Your task to perform on an android device: Is it going to rain this weekend? Image 0: 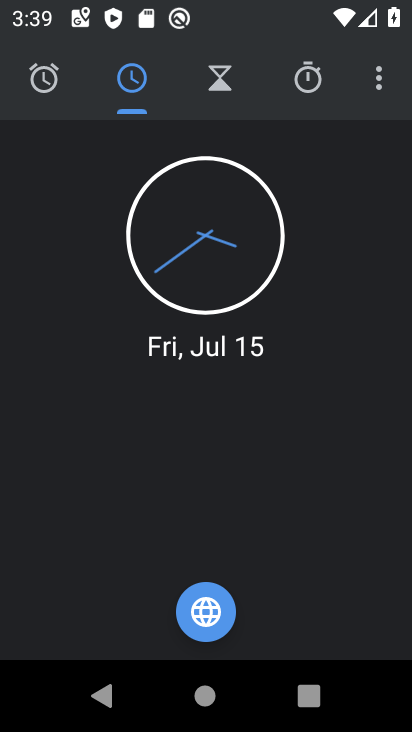
Step 0: press home button
Your task to perform on an android device: Is it going to rain this weekend? Image 1: 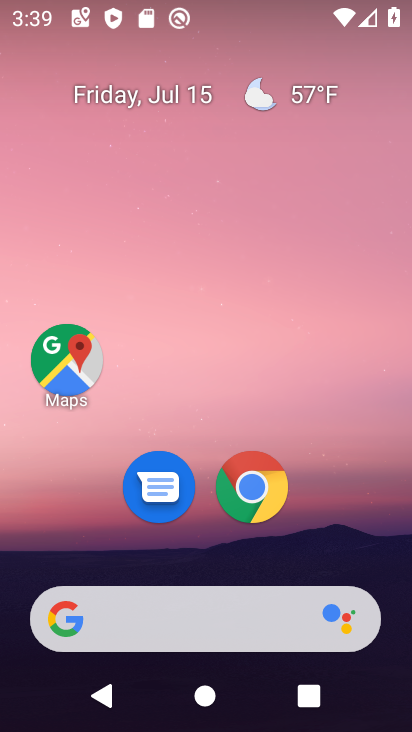
Step 1: drag from (168, 572) to (178, 126)
Your task to perform on an android device: Is it going to rain this weekend? Image 2: 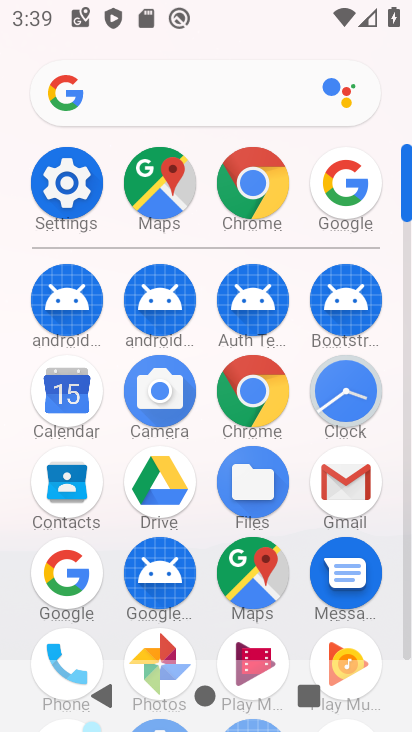
Step 2: click (86, 575)
Your task to perform on an android device: Is it going to rain this weekend? Image 3: 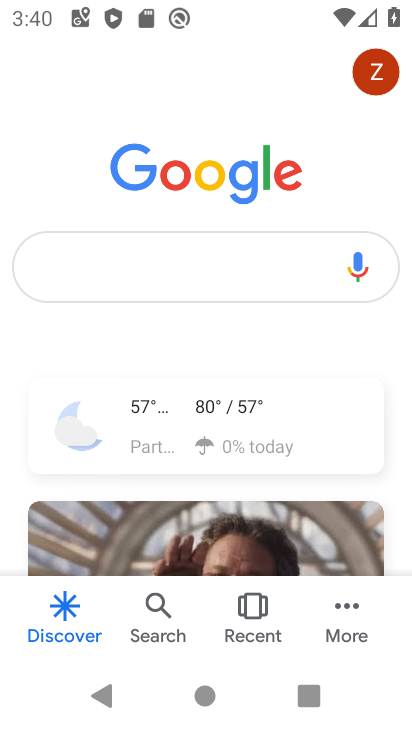
Step 3: click (191, 258)
Your task to perform on an android device: Is it going to rain this weekend? Image 4: 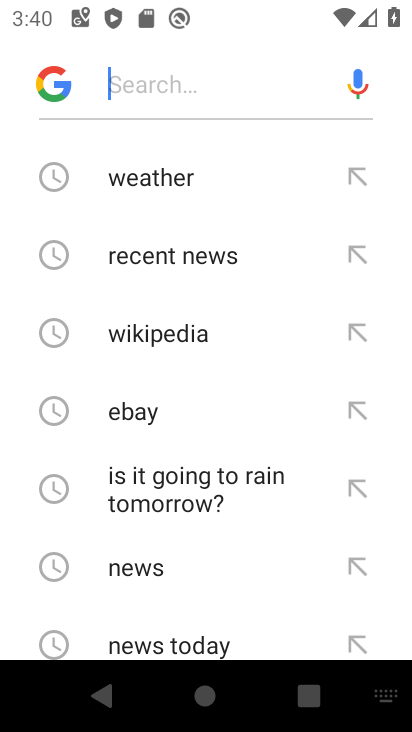
Step 4: click (225, 184)
Your task to perform on an android device: Is it going to rain this weekend? Image 5: 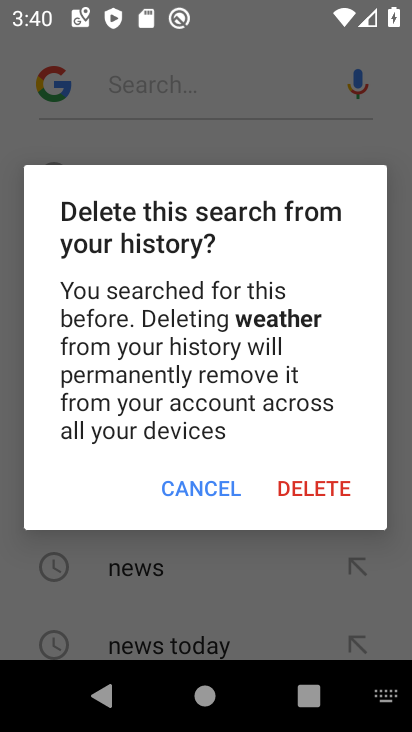
Step 5: click (192, 502)
Your task to perform on an android device: Is it going to rain this weekend? Image 6: 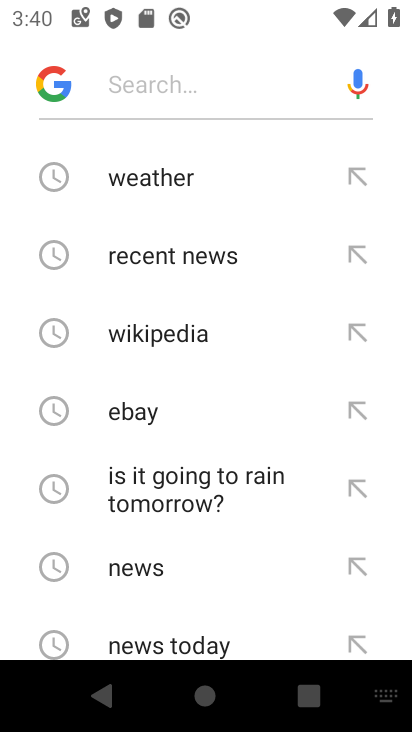
Step 6: click (361, 181)
Your task to perform on an android device: Is it going to rain this weekend? Image 7: 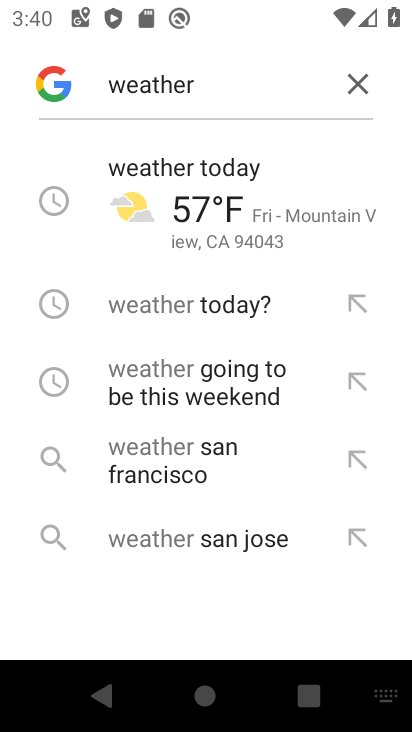
Step 7: type "weekend"
Your task to perform on an android device: Is it going to rain this weekend? Image 8: 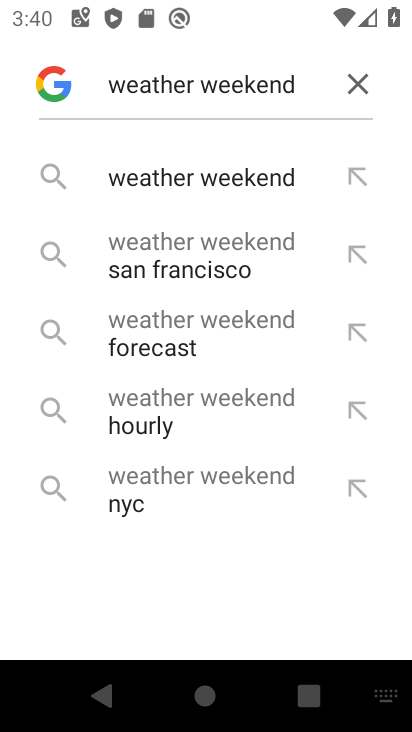
Step 8: click (172, 187)
Your task to perform on an android device: Is it going to rain this weekend? Image 9: 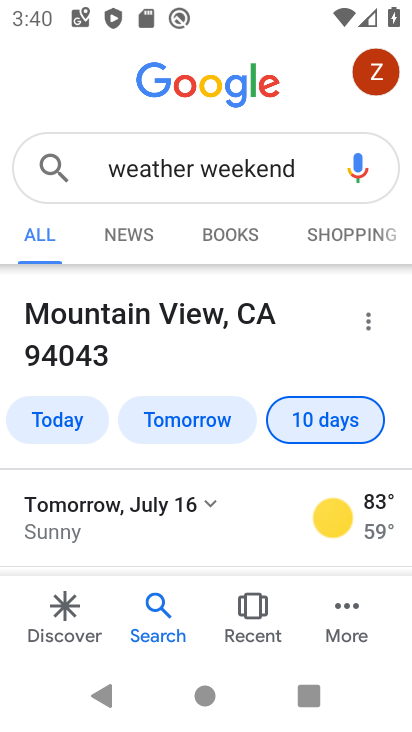
Step 9: task complete